Your task to perform on an android device: Check the weather Image 0: 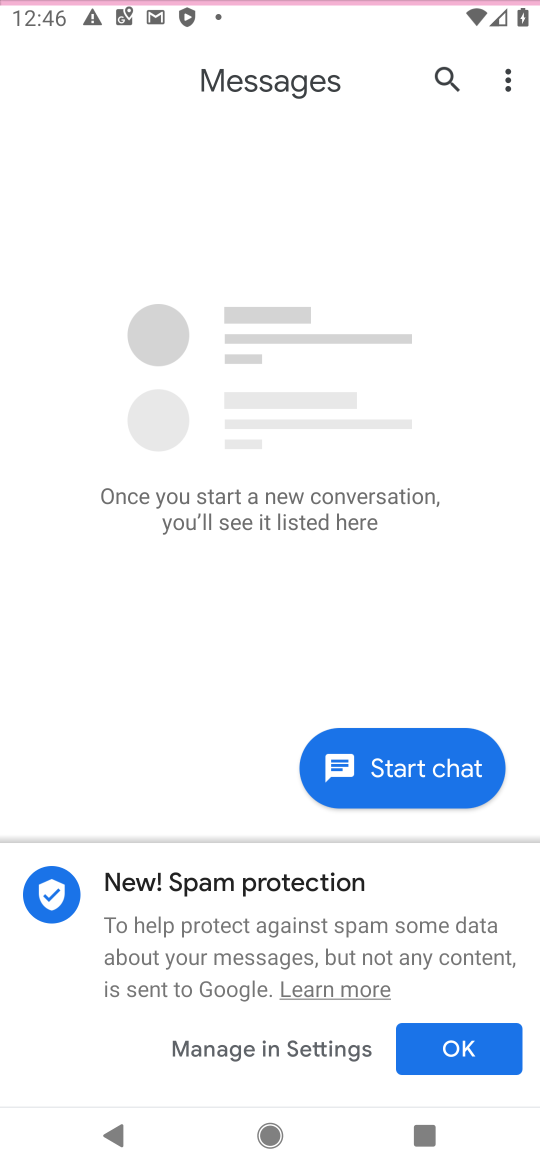
Step 0: click (333, 1112)
Your task to perform on an android device: Check the weather Image 1: 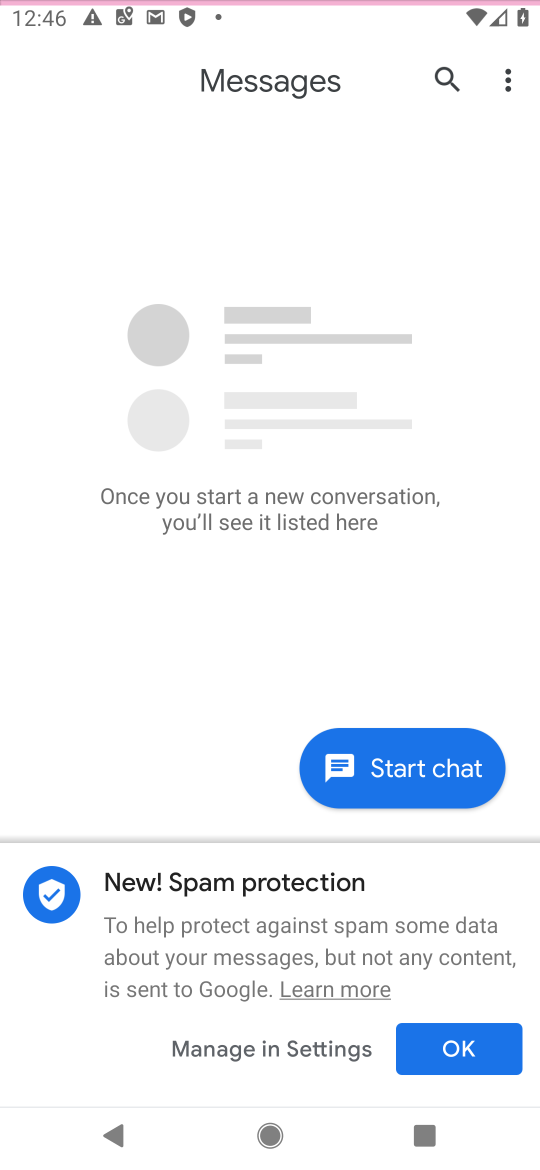
Step 1: press home button
Your task to perform on an android device: Check the weather Image 2: 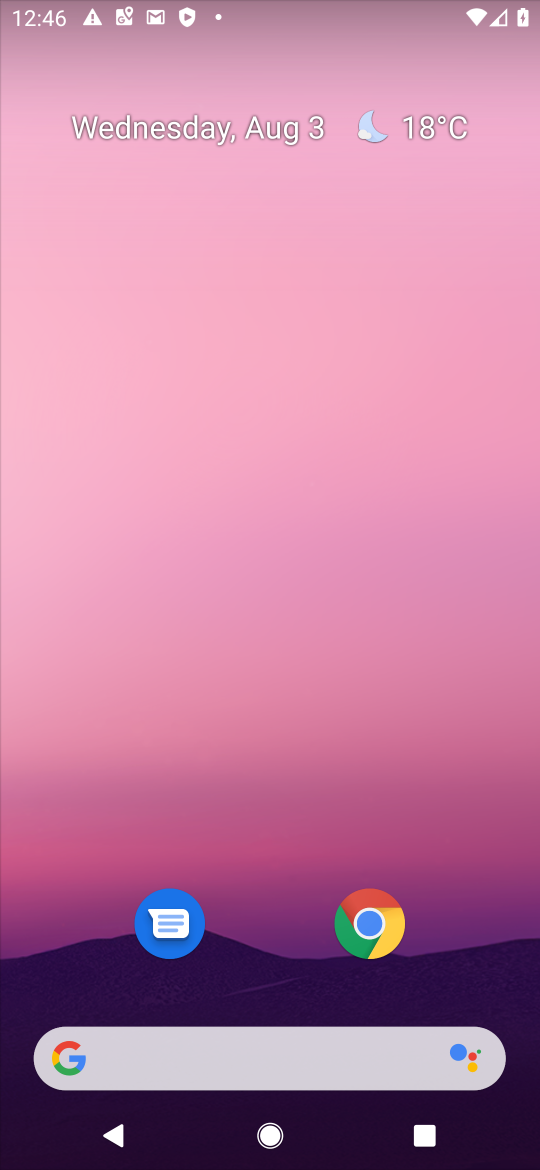
Step 2: drag from (247, 942) to (352, 16)
Your task to perform on an android device: Check the weather Image 3: 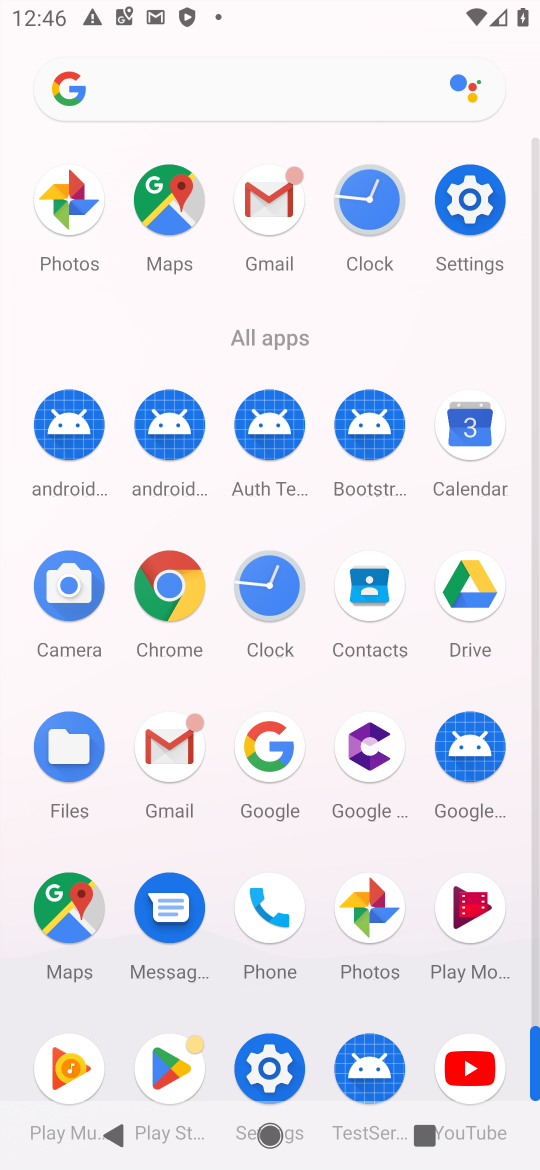
Step 3: click (196, 97)
Your task to perform on an android device: Check the weather Image 4: 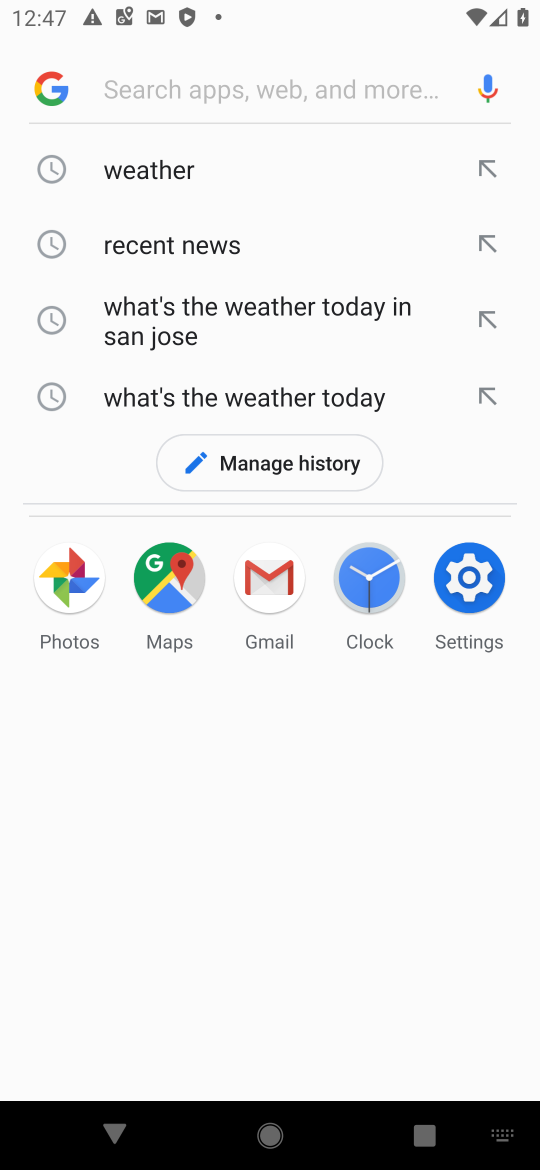
Step 4: click (134, 161)
Your task to perform on an android device: Check the weather Image 5: 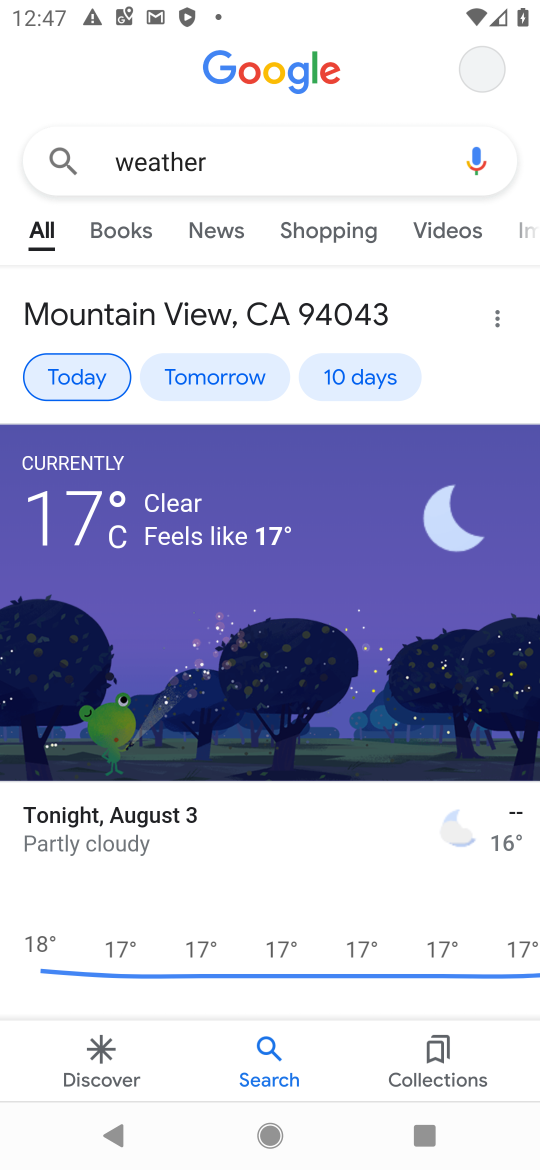
Step 5: task complete